Your task to perform on an android device: Open CNN.com Image 0: 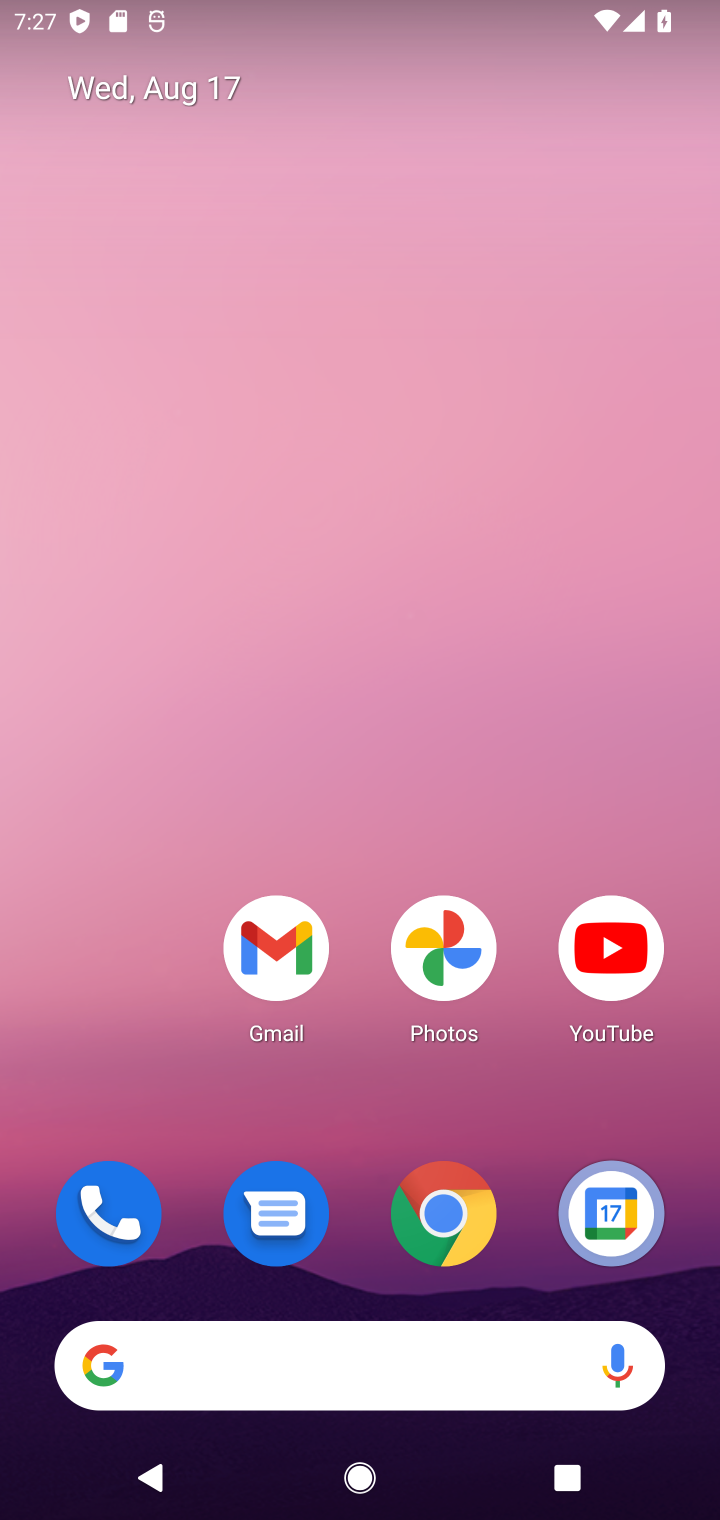
Step 0: click (447, 1235)
Your task to perform on an android device: Open CNN.com Image 1: 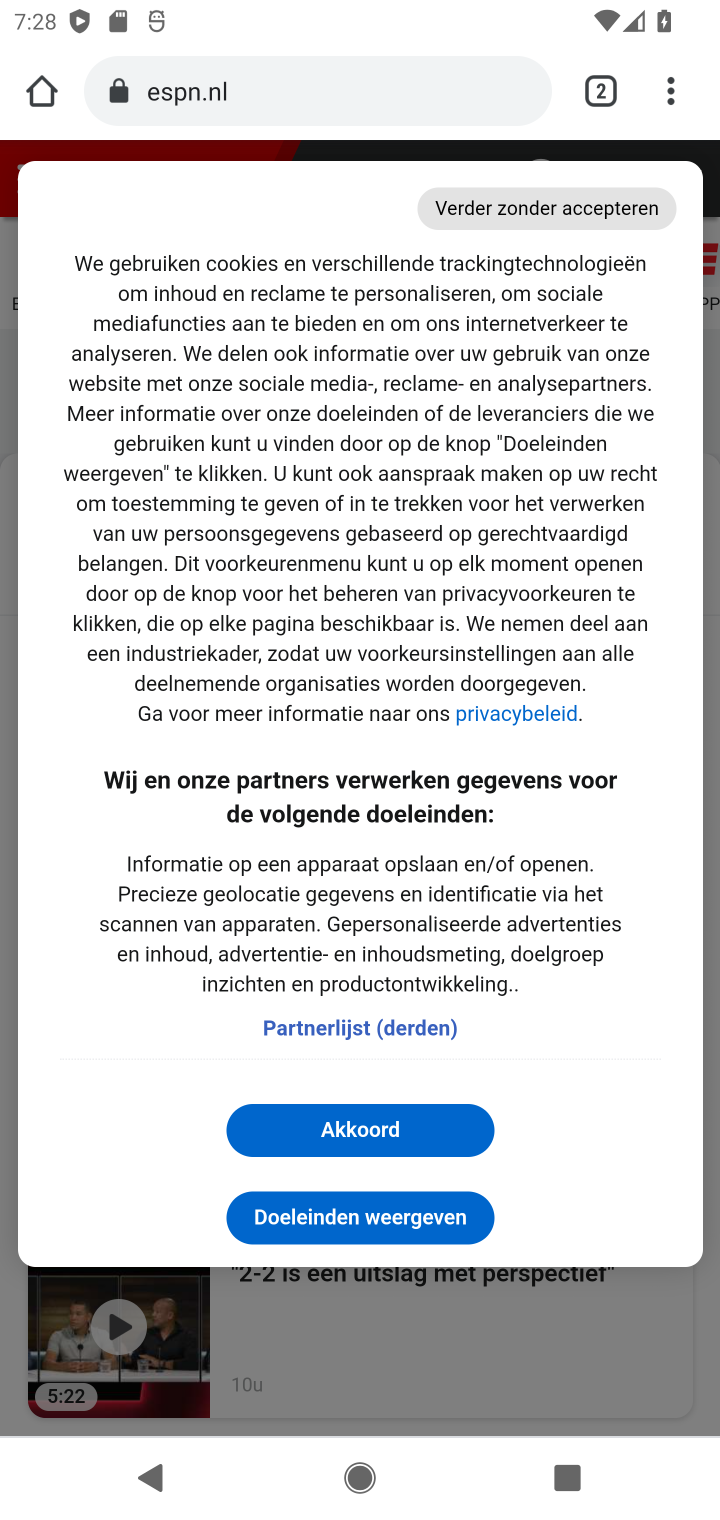
Step 1: click (360, 115)
Your task to perform on an android device: Open CNN.com Image 2: 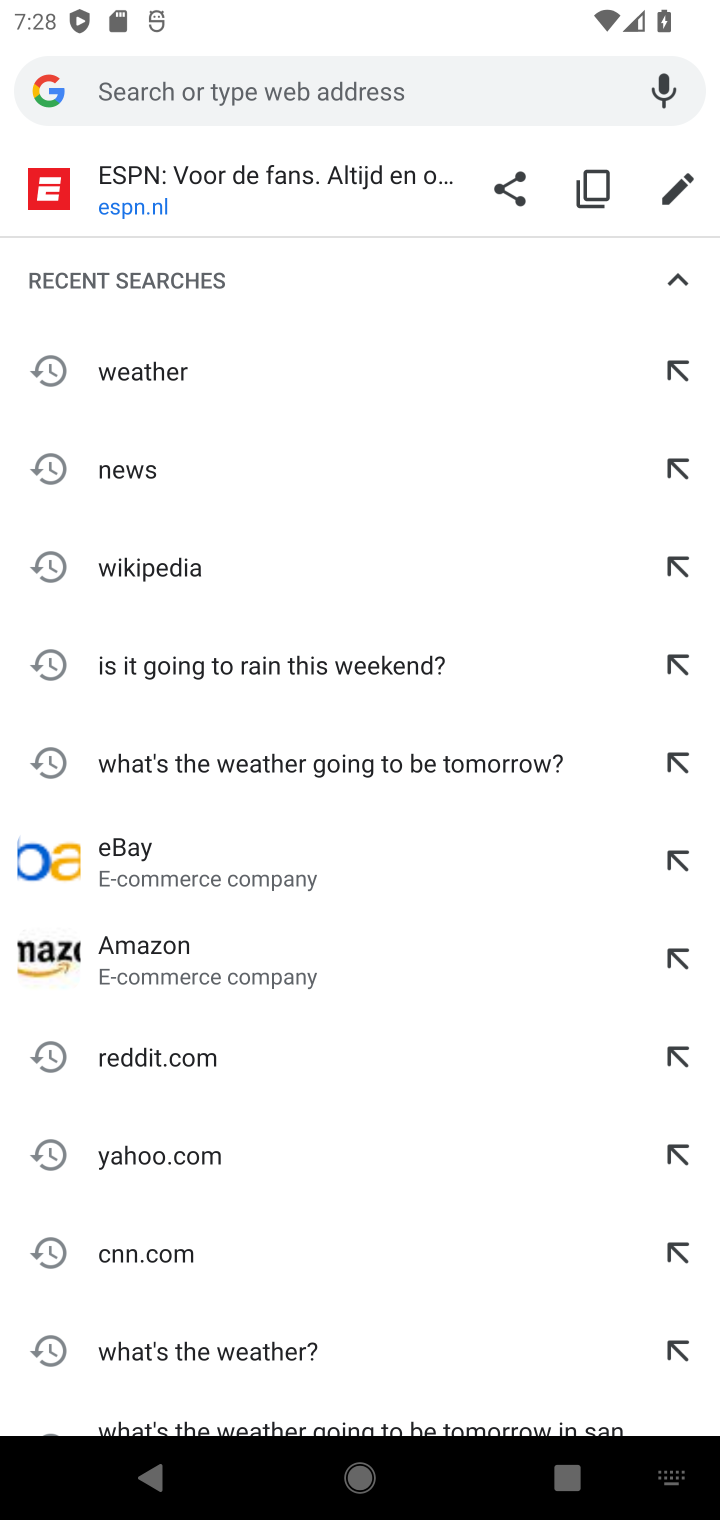
Step 2: type "cnn.com"
Your task to perform on an android device: Open CNN.com Image 3: 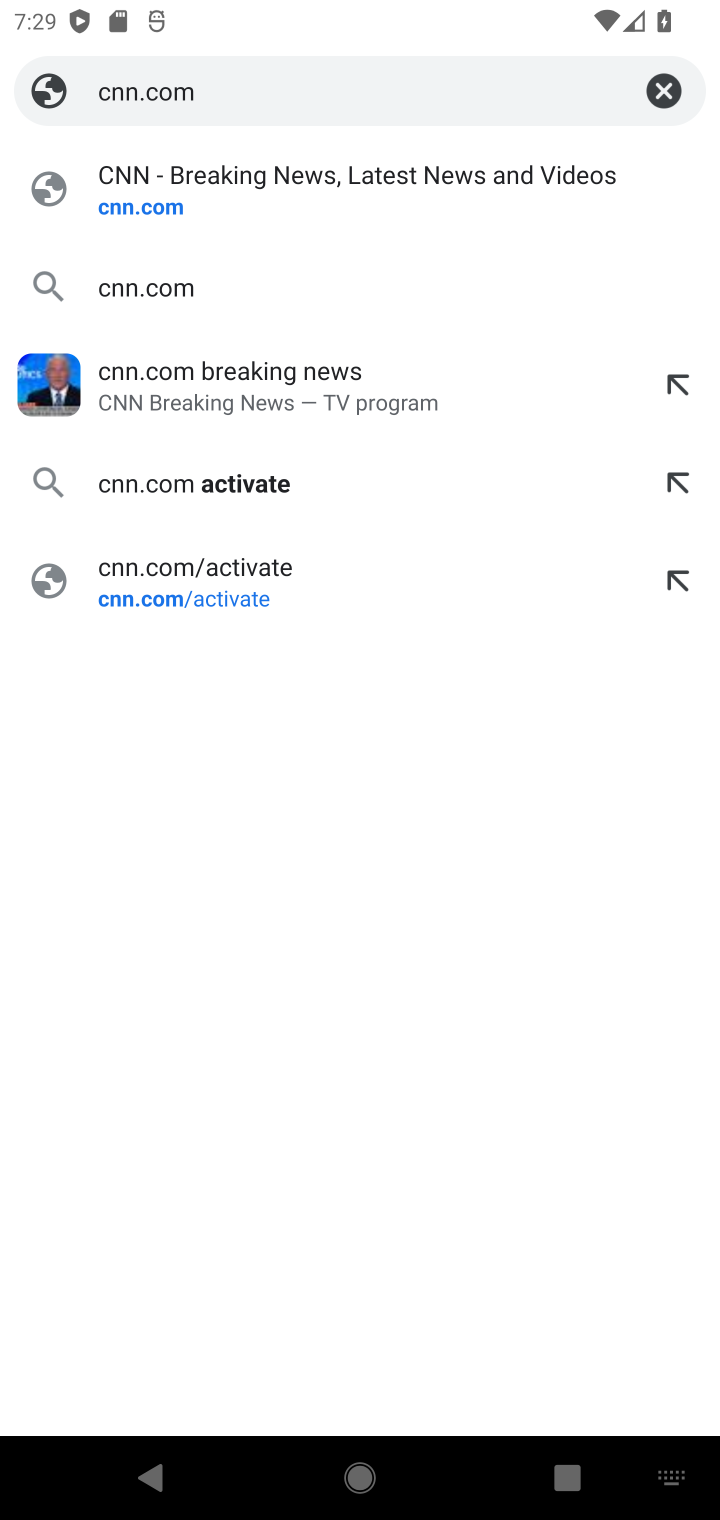
Step 3: click (361, 219)
Your task to perform on an android device: Open CNN.com Image 4: 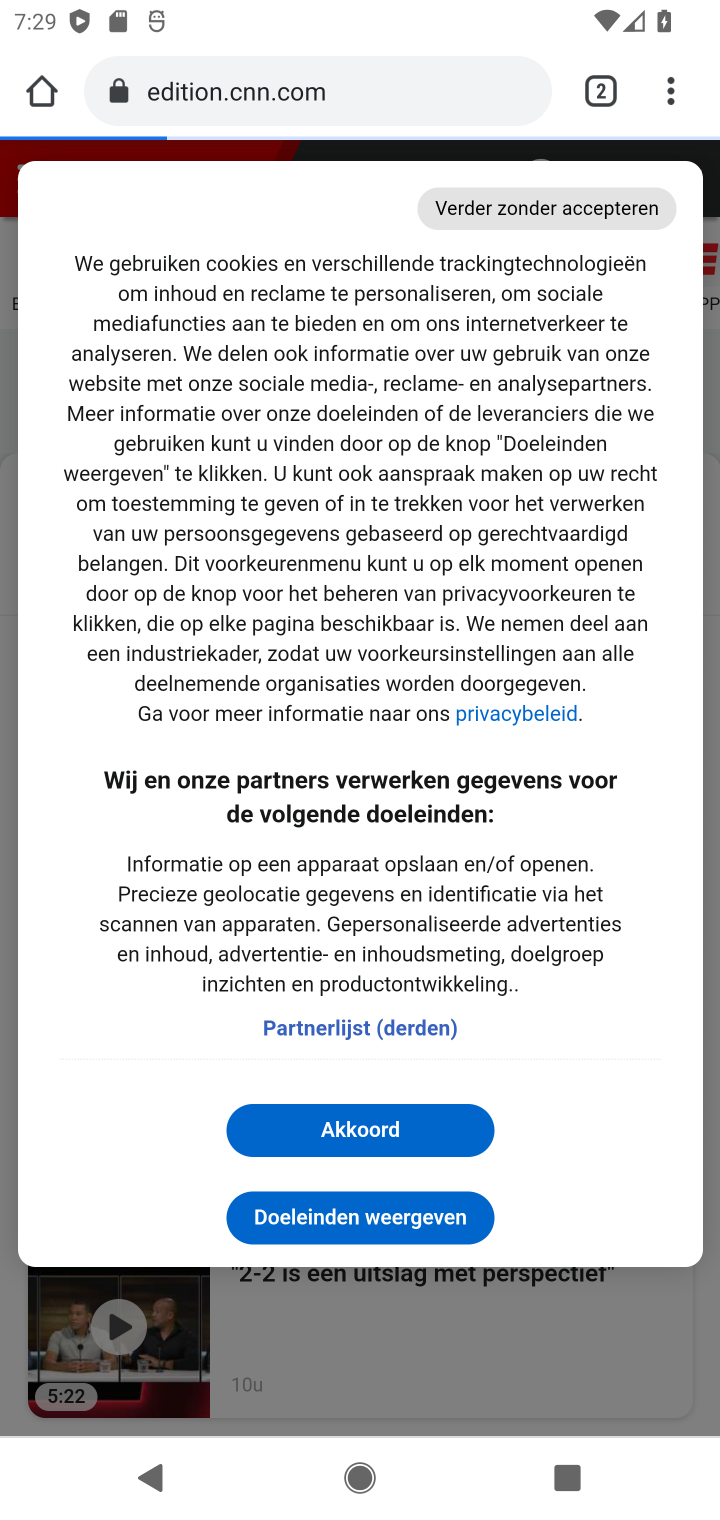
Step 4: task complete